Your task to perform on an android device: Show me popular videos on Youtube Image 0: 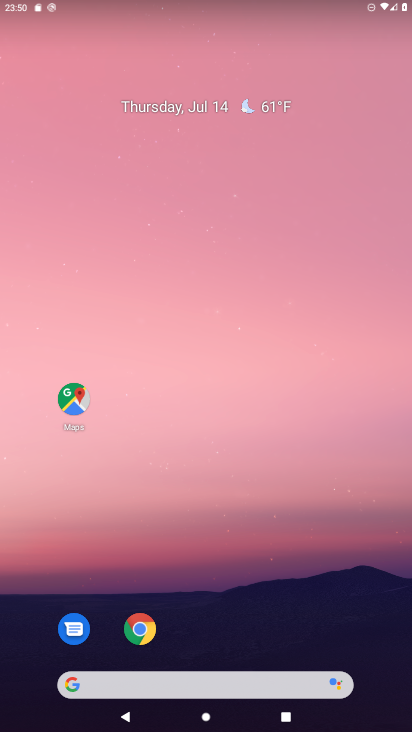
Step 0: drag from (192, 659) to (208, 7)
Your task to perform on an android device: Show me popular videos on Youtube Image 1: 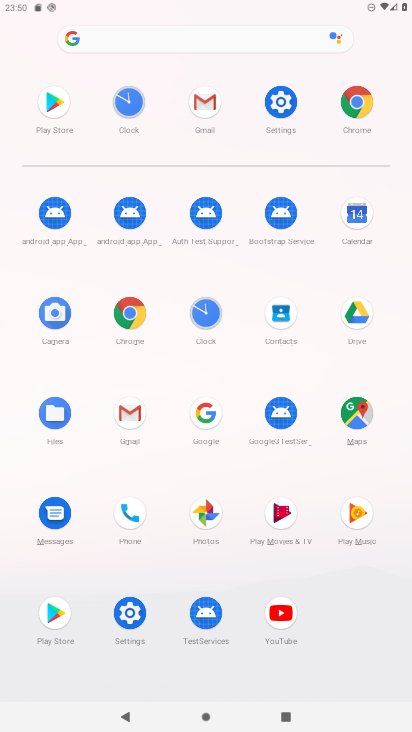
Step 1: click (282, 623)
Your task to perform on an android device: Show me popular videos on Youtube Image 2: 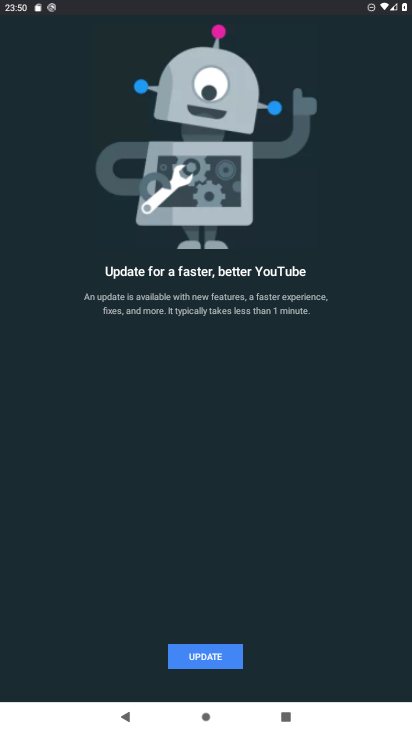
Step 2: click (192, 652)
Your task to perform on an android device: Show me popular videos on Youtube Image 3: 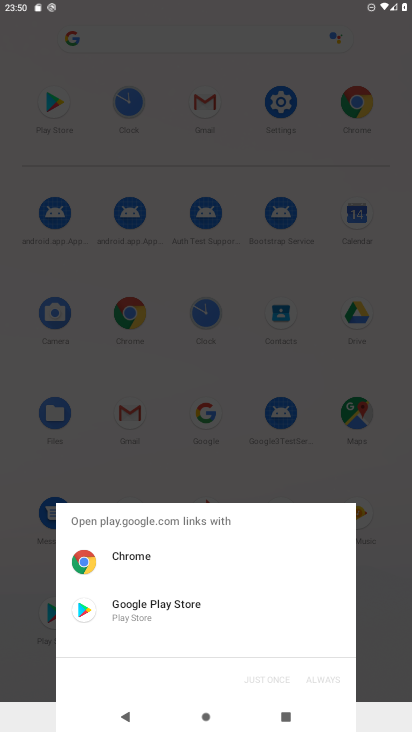
Step 3: click (158, 609)
Your task to perform on an android device: Show me popular videos on Youtube Image 4: 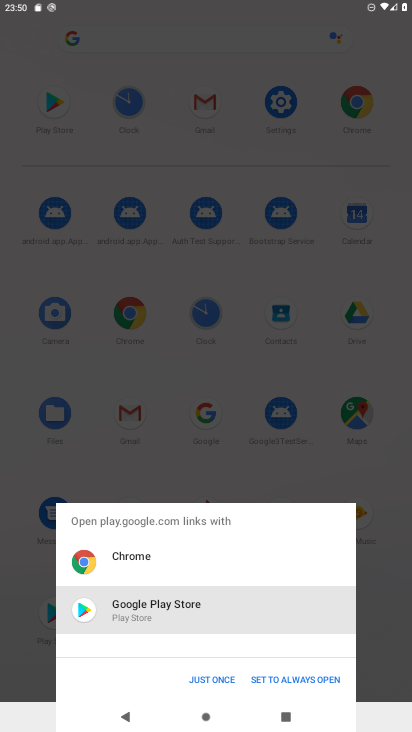
Step 4: click (220, 677)
Your task to perform on an android device: Show me popular videos on Youtube Image 5: 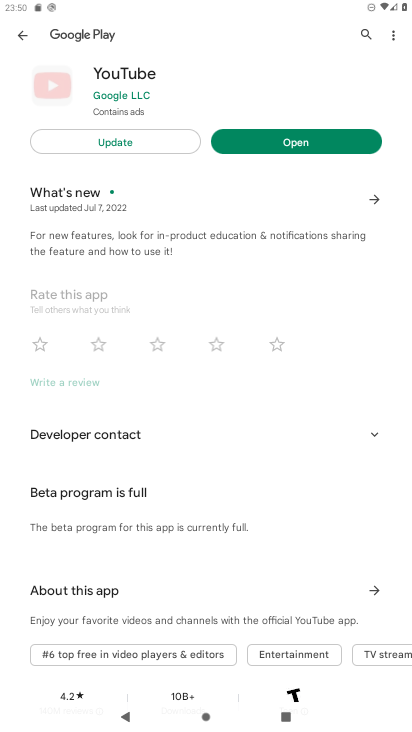
Step 5: click (159, 146)
Your task to perform on an android device: Show me popular videos on Youtube Image 6: 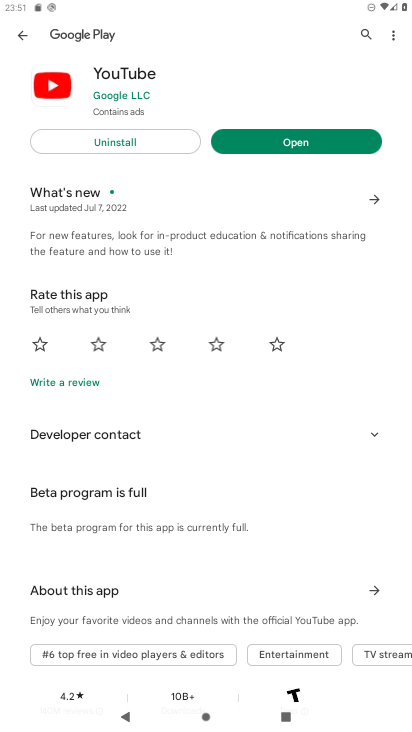
Step 6: click (253, 150)
Your task to perform on an android device: Show me popular videos on Youtube Image 7: 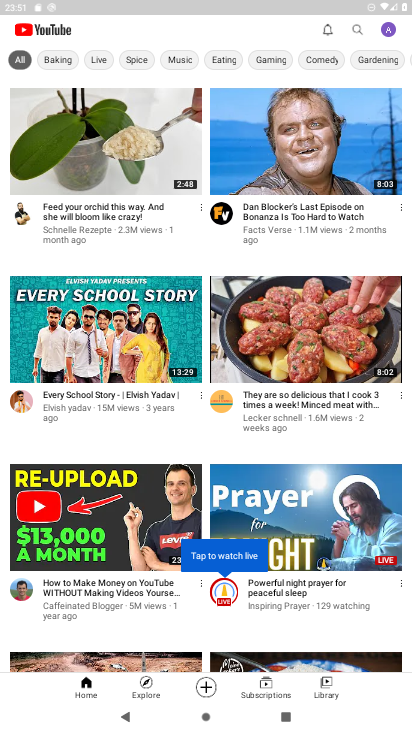
Step 7: click (145, 683)
Your task to perform on an android device: Show me popular videos on Youtube Image 8: 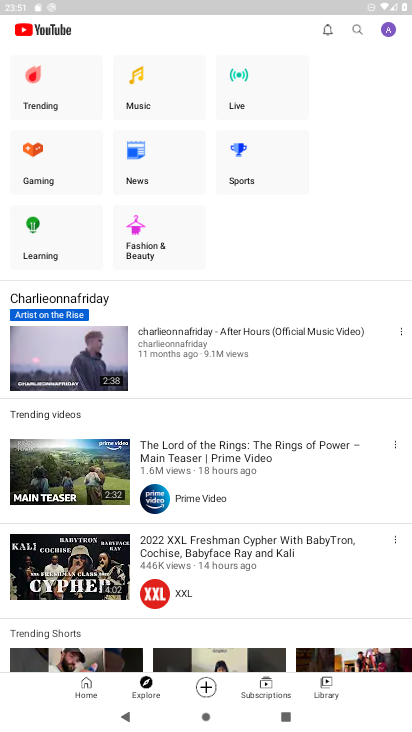
Step 8: click (49, 93)
Your task to perform on an android device: Show me popular videos on Youtube Image 9: 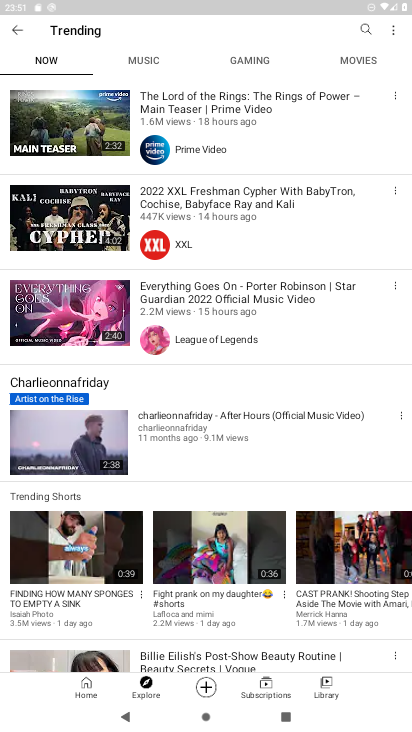
Step 9: task complete